Your task to perform on an android device: Open Android settings Image 0: 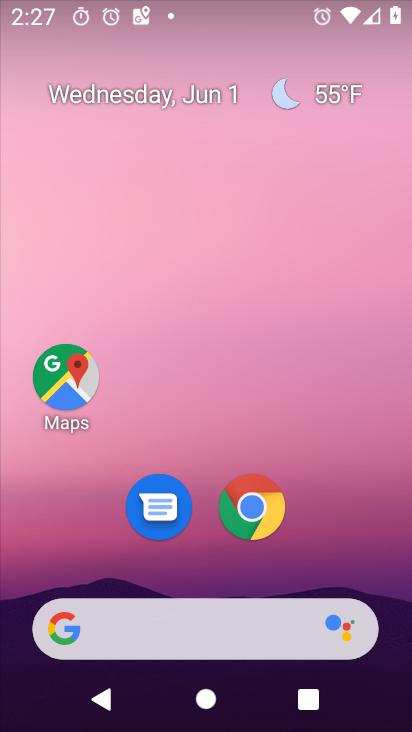
Step 0: drag from (322, 562) to (328, 18)
Your task to perform on an android device: Open Android settings Image 1: 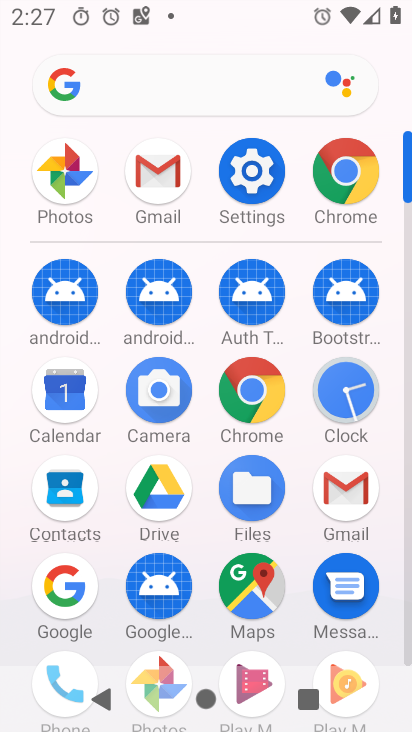
Step 1: click (258, 172)
Your task to perform on an android device: Open Android settings Image 2: 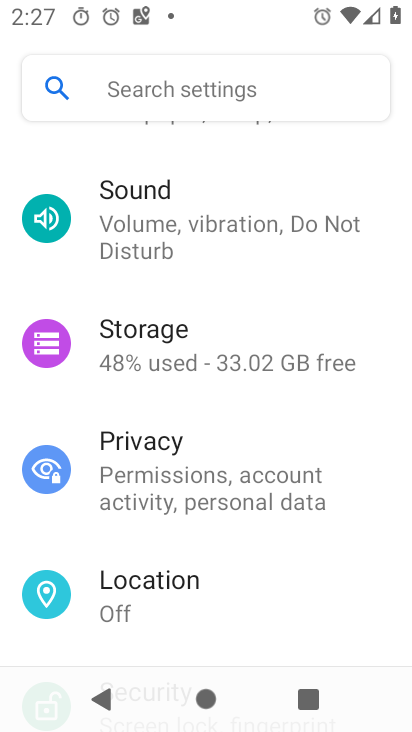
Step 2: task complete